Your task to perform on an android device: turn on bluetooth scan Image 0: 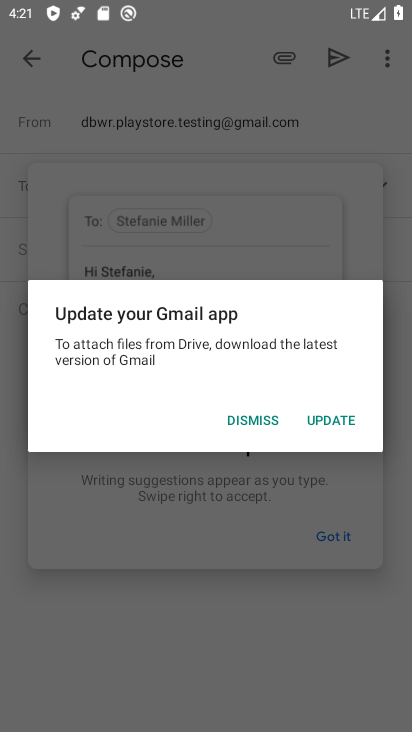
Step 0: press home button
Your task to perform on an android device: turn on bluetooth scan Image 1: 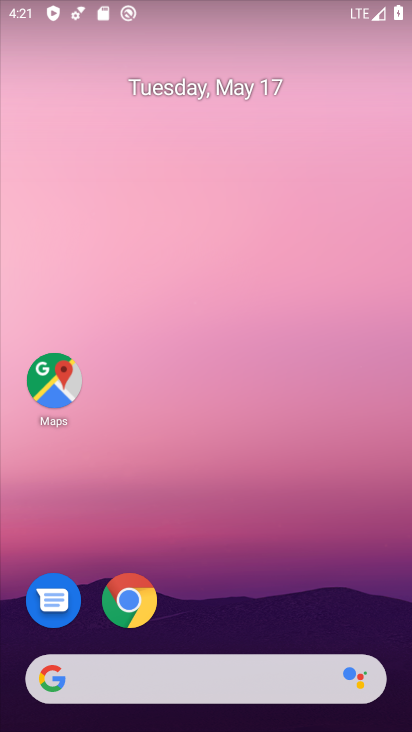
Step 1: drag from (272, 629) to (279, 79)
Your task to perform on an android device: turn on bluetooth scan Image 2: 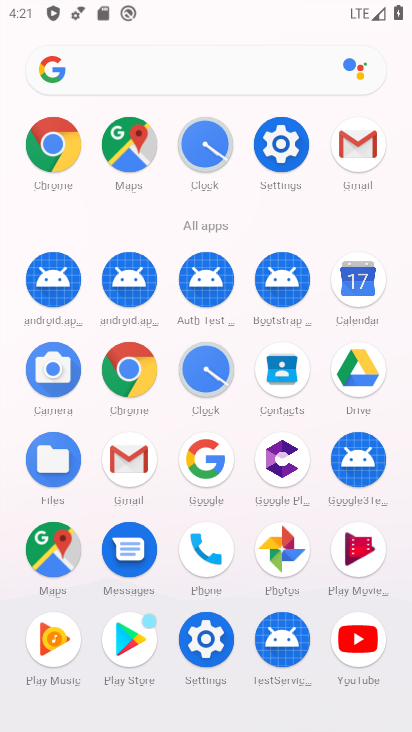
Step 2: click (206, 646)
Your task to perform on an android device: turn on bluetooth scan Image 3: 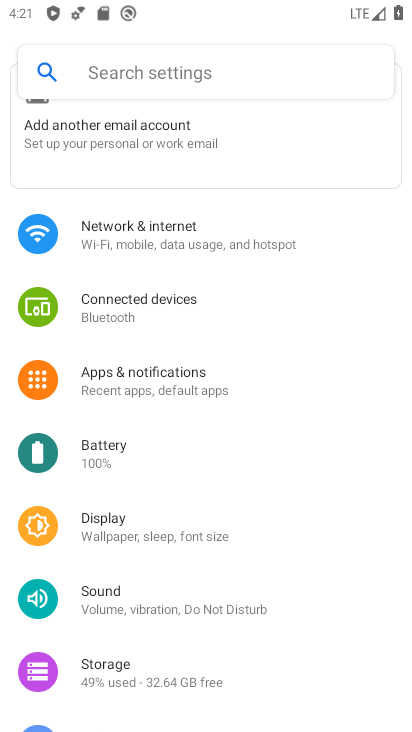
Step 3: drag from (290, 630) to (295, 263)
Your task to perform on an android device: turn on bluetooth scan Image 4: 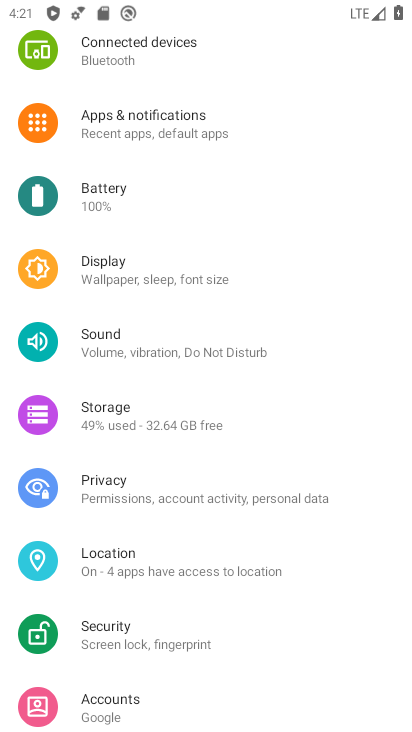
Step 4: click (144, 545)
Your task to perform on an android device: turn on bluetooth scan Image 5: 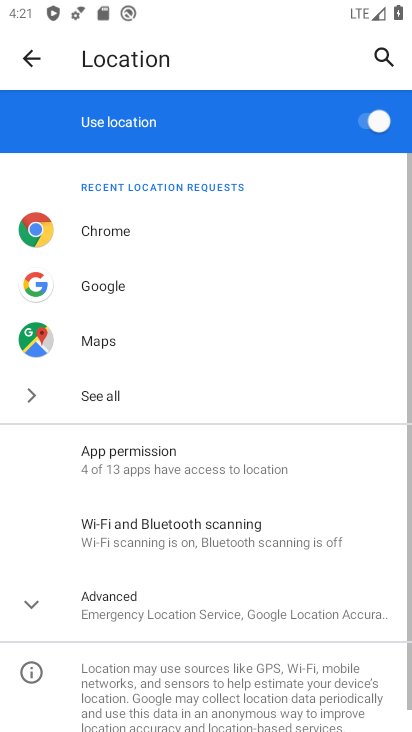
Step 5: click (188, 533)
Your task to perform on an android device: turn on bluetooth scan Image 6: 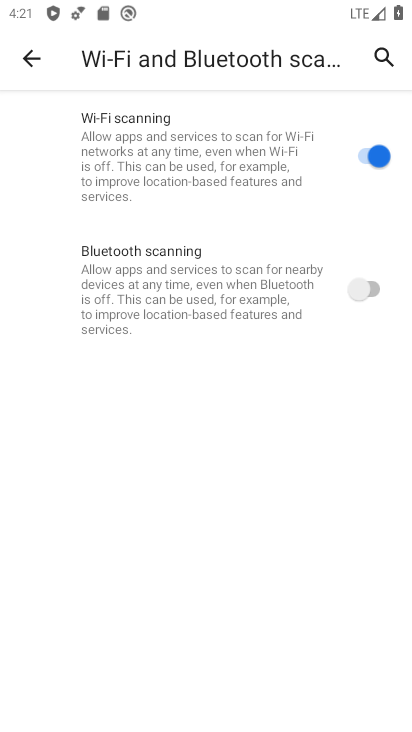
Step 6: click (374, 287)
Your task to perform on an android device: turn on bluetooth scan Image 7: 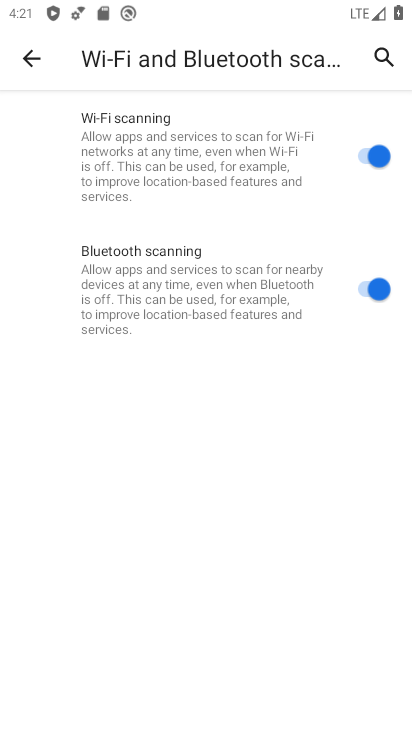
Step 7: task complete